Your task to perform on an android device: Search for flights from NYC to Chicago Image 0: 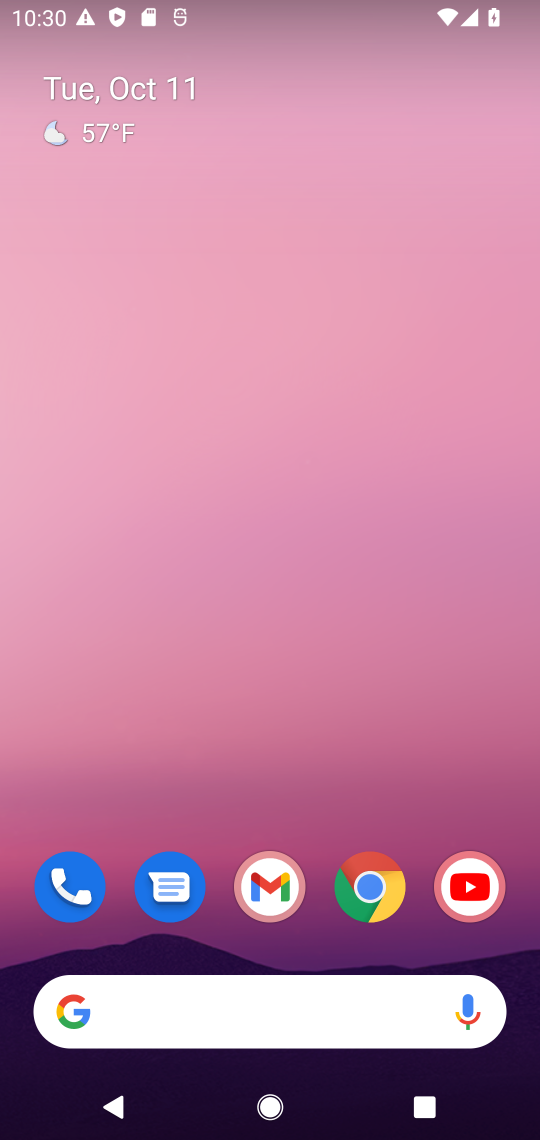
Step 0: press home button
Your task to perform on an android device: Search for flights from NYC to Chicago Image 1: 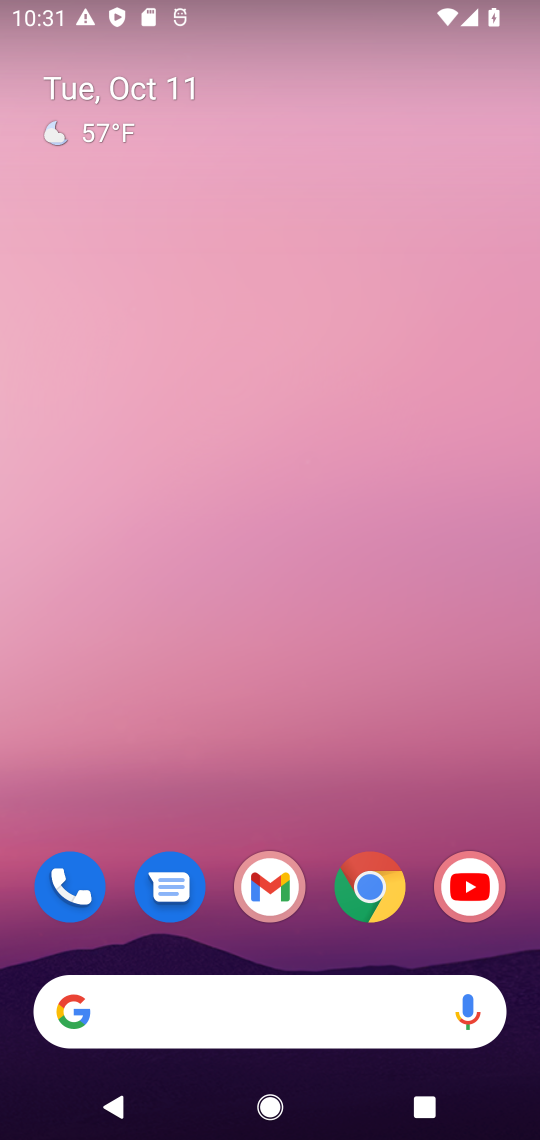
Step 1: click (334, 1008)
Your task to perform on an android device: Search for flights from NYC to Chicago Image 2: 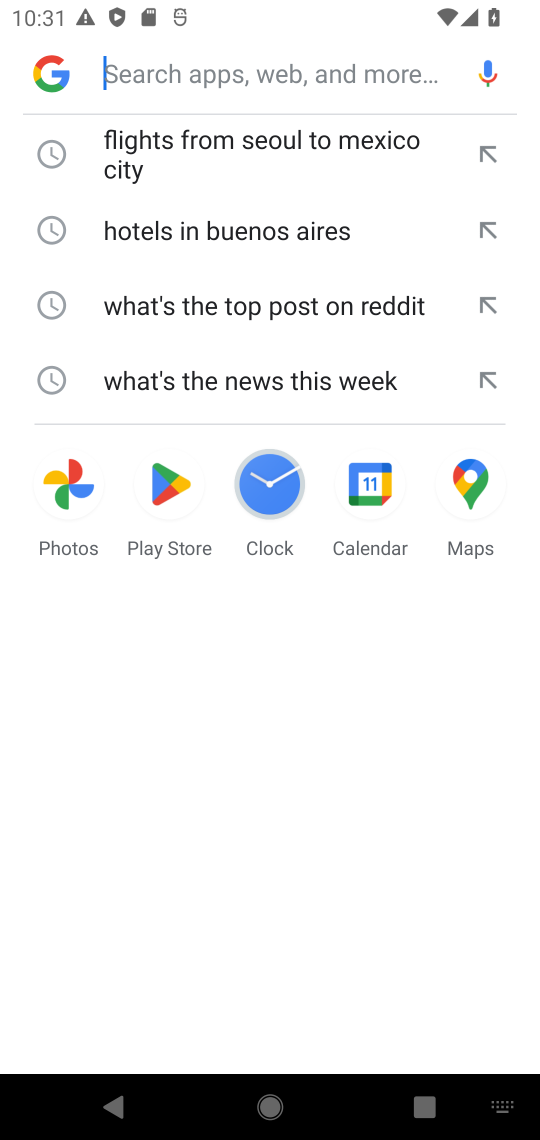
Step 2: type "flights from NYC to Chicago"
Your task to perform on an android device: Search for flights from NYC to Chicago Image 3: 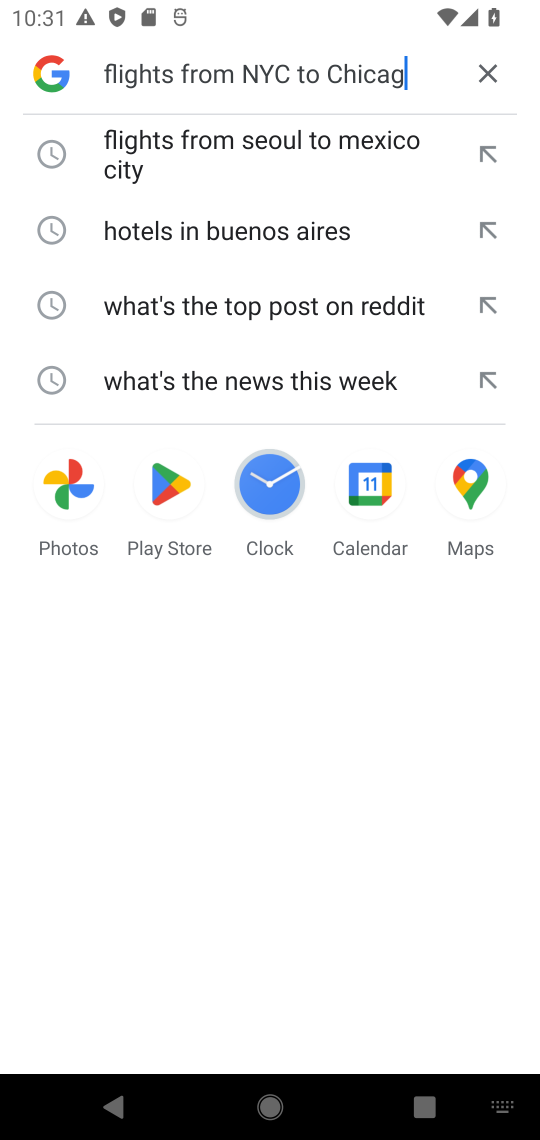
Step 3: press enter
Your task to perform on an android device: Search for flights from NYC to Chicago Image 4: 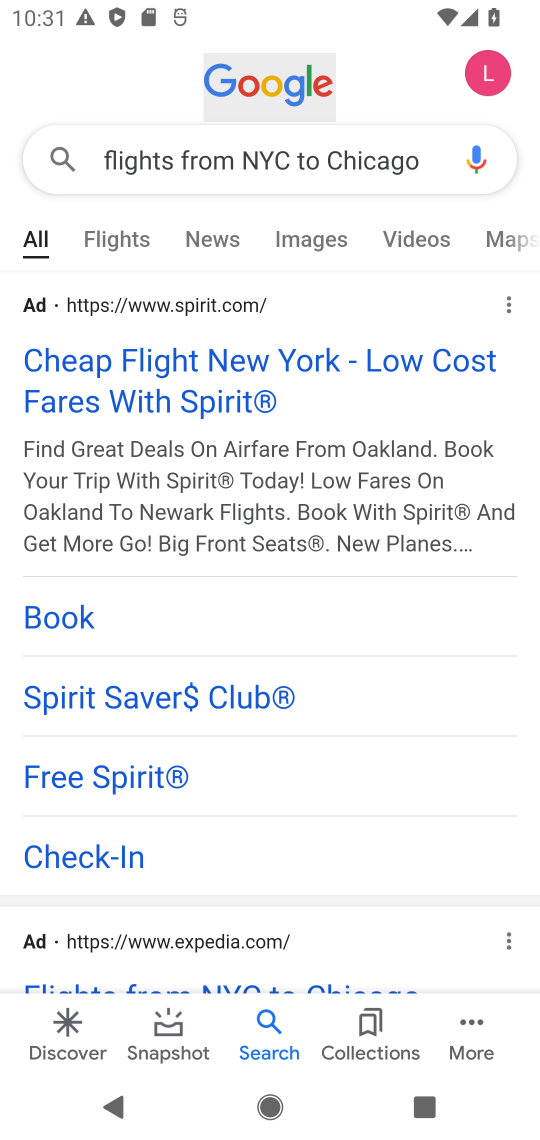
Step 4: drag from (444, 837) to (476, 676)
Your task to perform on an android device: Search for flights from NYC to Chicago Image 5: 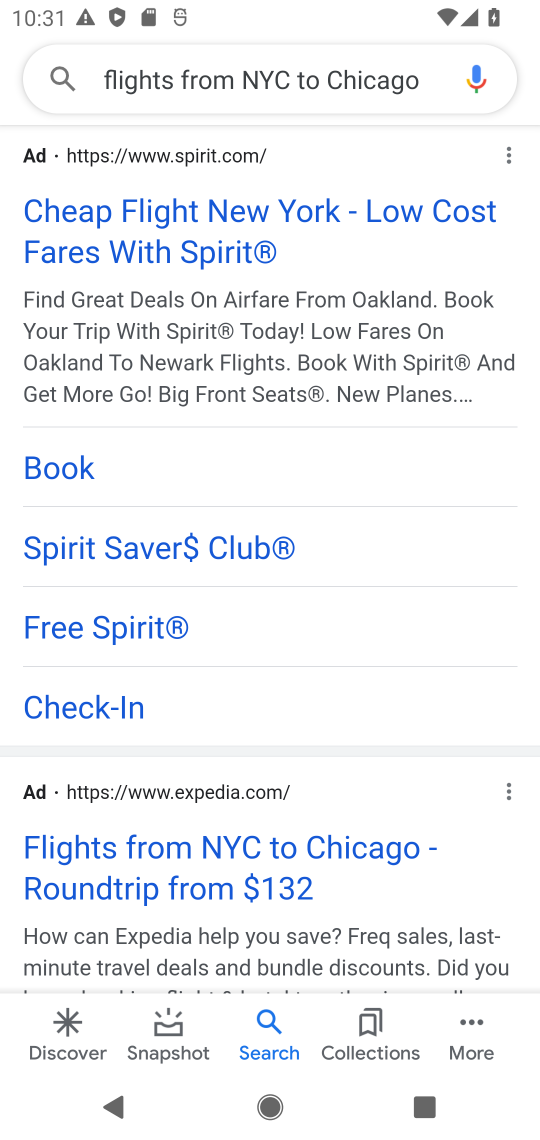
Step 5: drag from (452, 905) to (464, 654)
Your task to perform on an android device: Search for flights from NYC to Chicago Image 6: 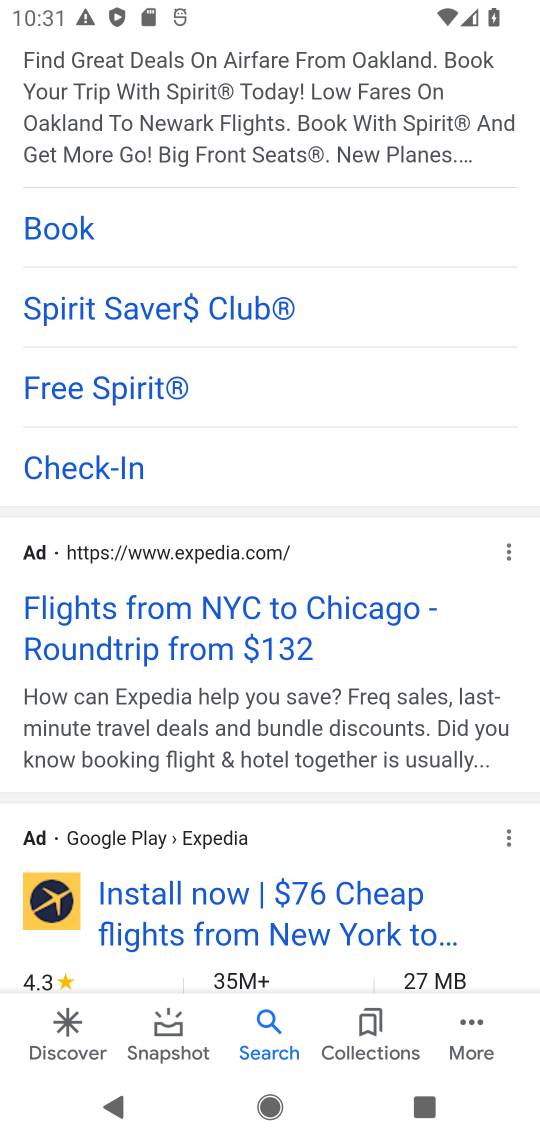
Step 6: drag from (375, 819) to (372, 486)
Your task to perform on an android device: Search for flights from NYC to Chicago Image 7: 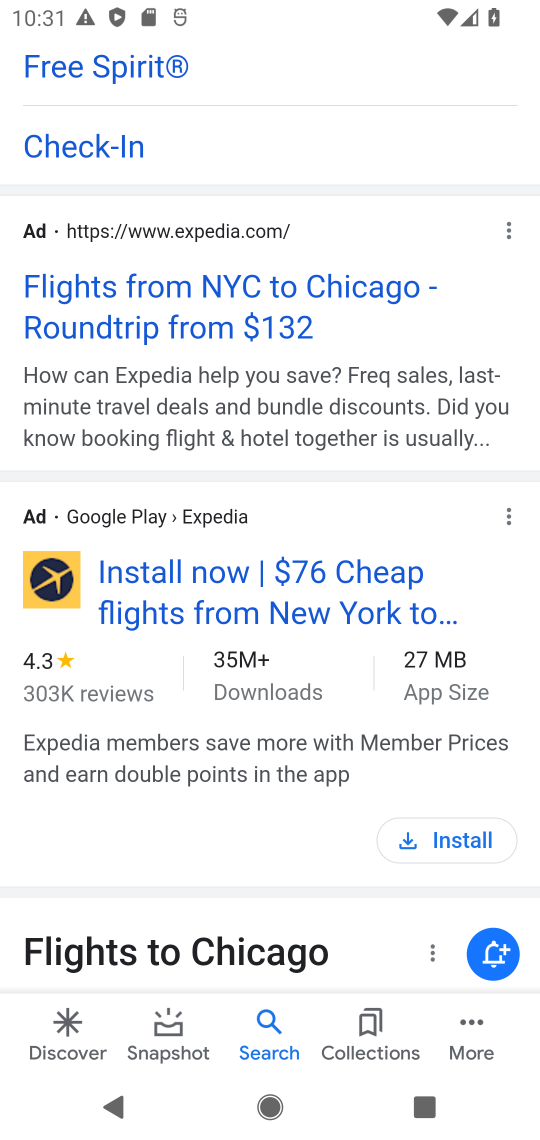
Step 7: drag from (324, 811) to (325, 522)
Your task to perform on an android device: Search for flights from NYC to Chicago Image 8: 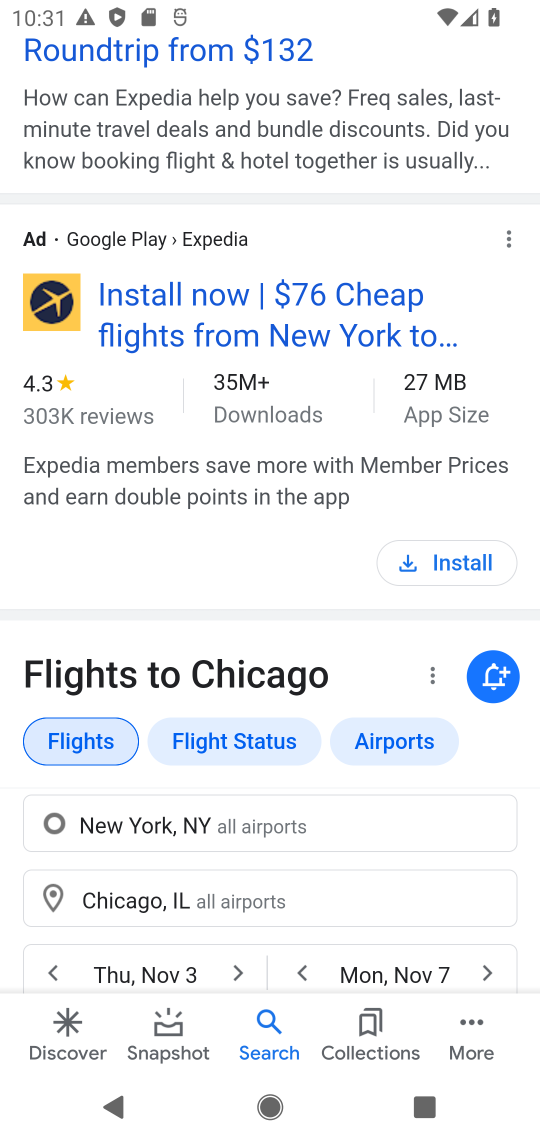
Step 8: drag from (308, 811) to (340, 472)
Your task to perform on an android device: Search for flights from NYC to Chicago Image 9: 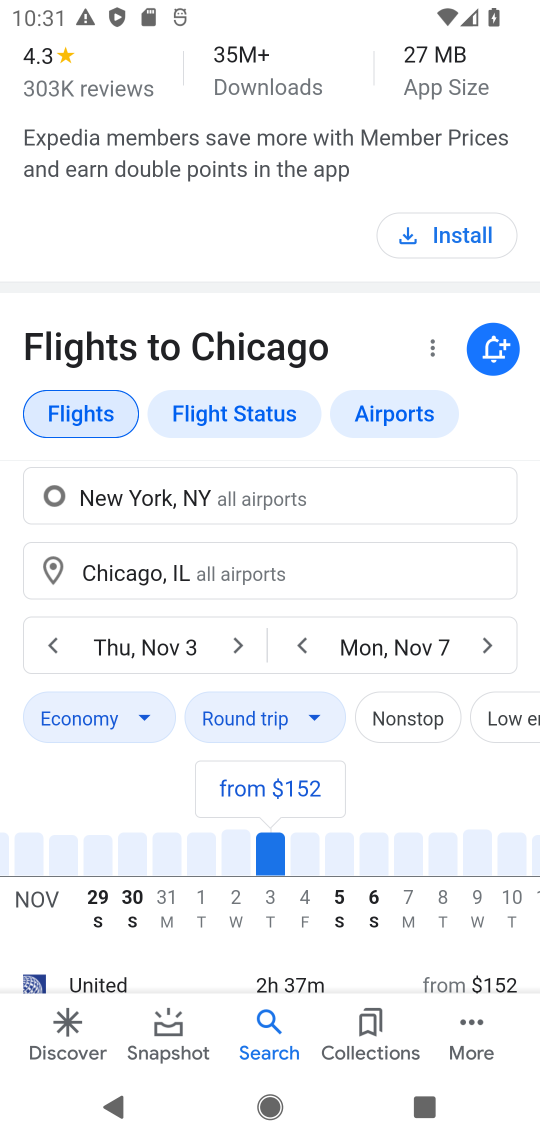
Step 9: drag from (346, 851) to (342, 433)
Your task to perform on an android device: Search for flights from NYC to Chicago Image 10: 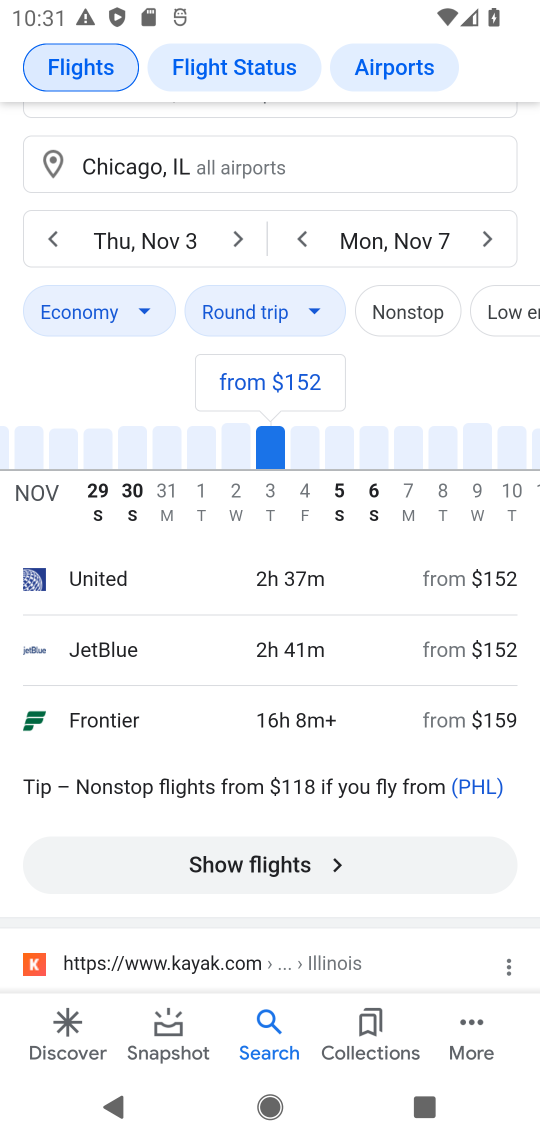
Step 10: click (255, 868)
Your task to perform on an android device: Search for flights from NYC to Chicago Image 11: 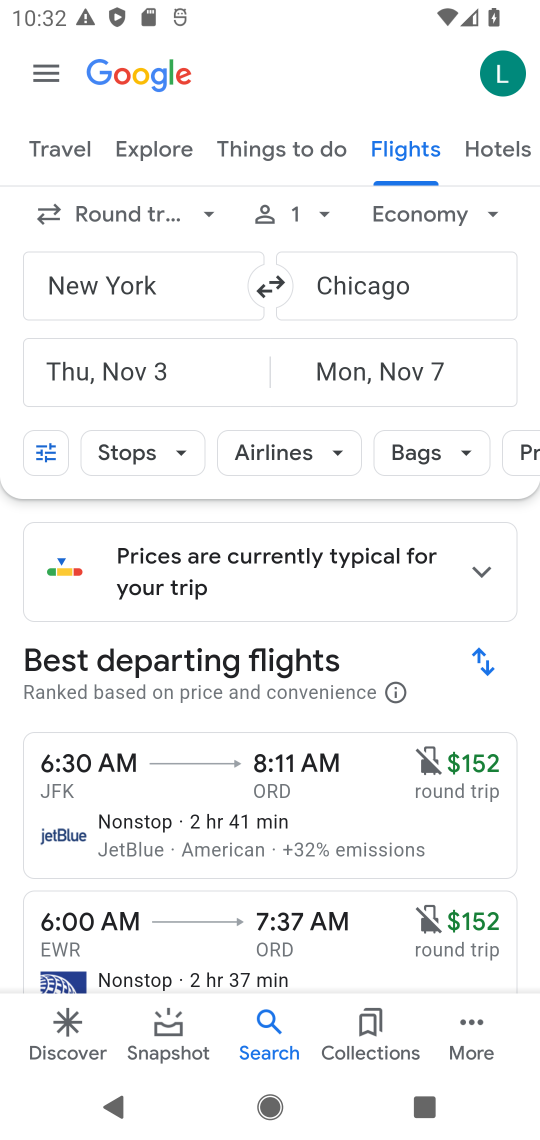
Step 11: task complete